Your task to perform on an android device: manage bookmarks in the chrome app Image 0: 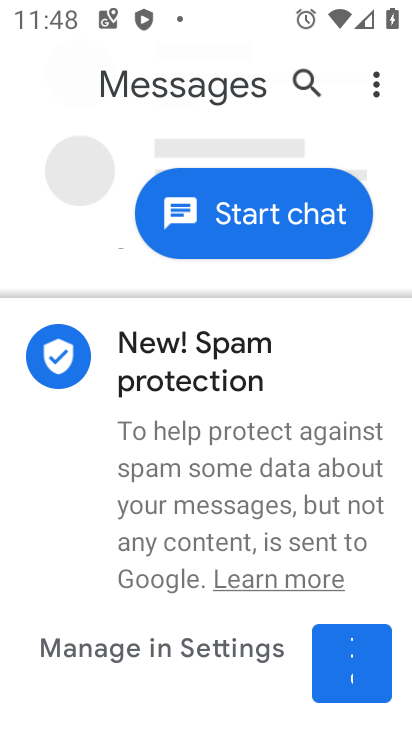
Step 0: press home button
Your task to perform on an android device: manage bookmarks in the chrome app Image 1: 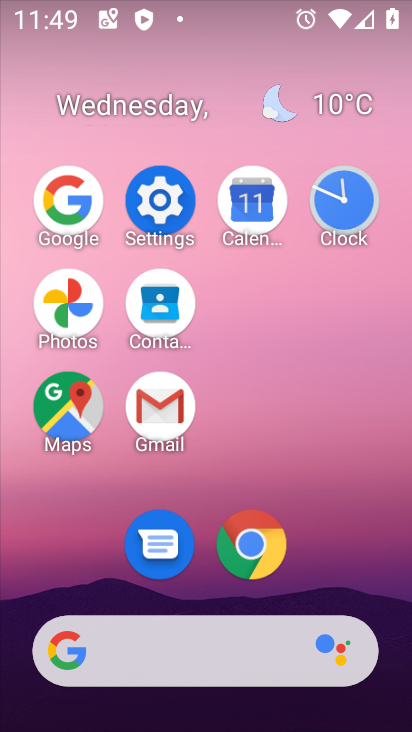
Step 1: click (249, 537)
Your task to perform on an android device: manage bookmarks in the chrome app Image 2: 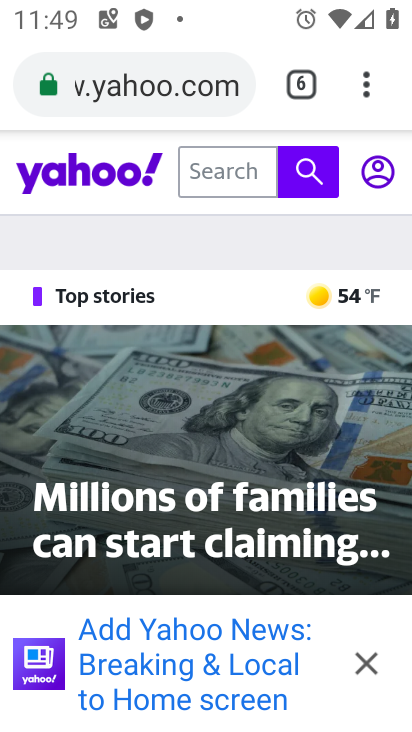
Step 2: click (373, 77)
Your task to perform on an android device: manage bookmarks in the chrome app Image 3: 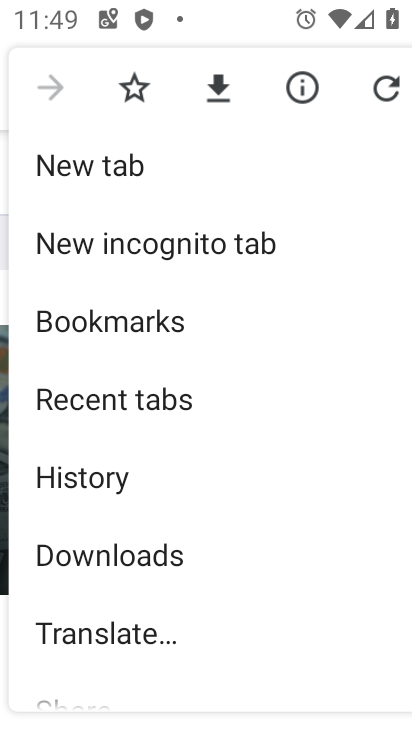
Step 3: click (169, 345)
Your task to perform on an android device: manage bookmarks in the chrome app Image 4: 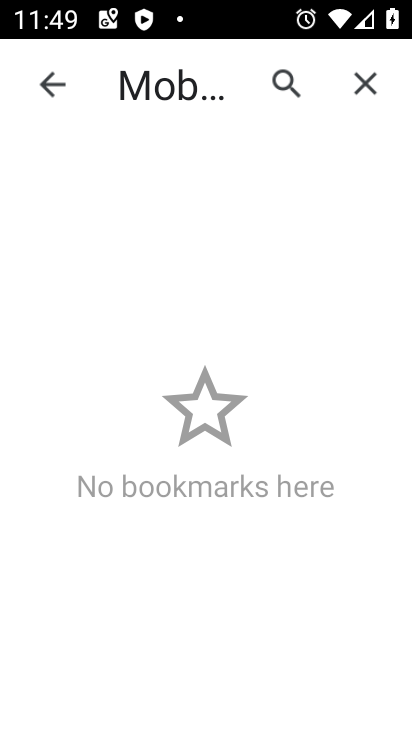
Step 4: task complete